Your task to perform on an android device: turn off location Image 0: 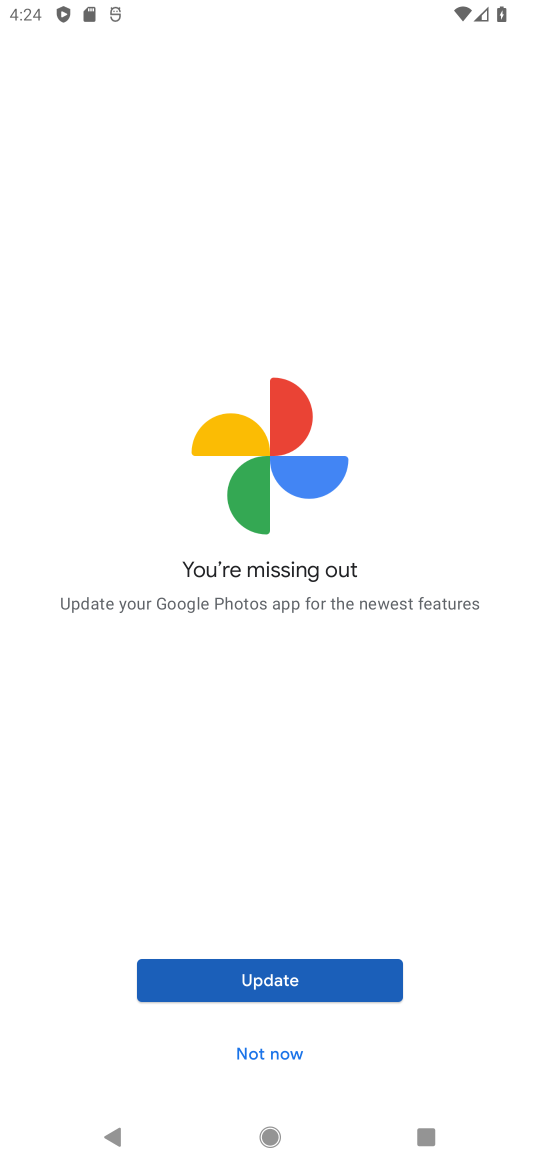
Step 0: press home button
Your task to perform on an android device: turn off location Image 1: 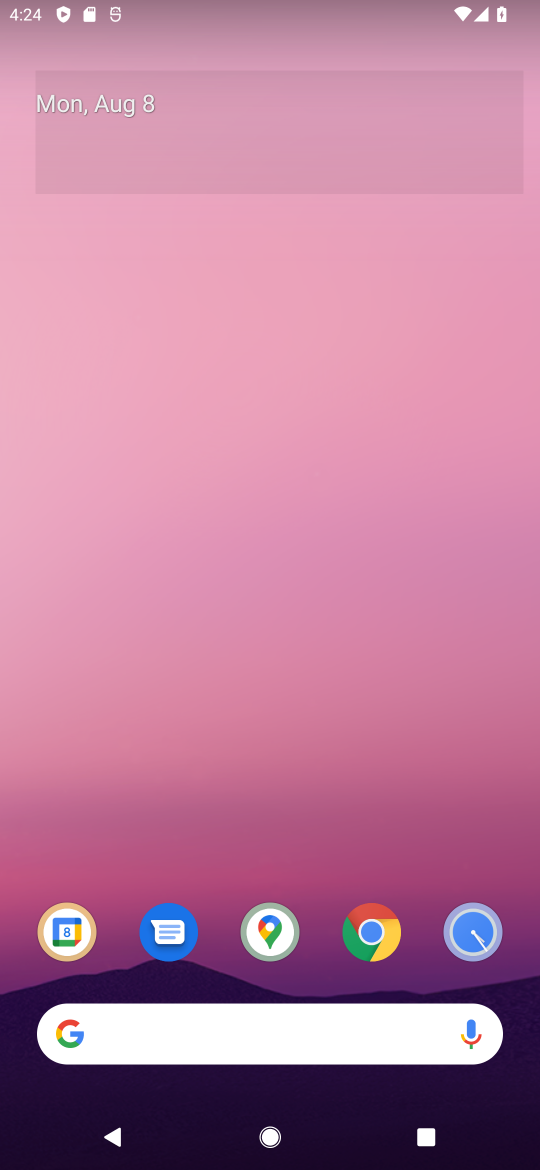
Step 1: drag from (165, 1094) to (219, 42)
Your task to perform on an android device: turn off location Image 2: 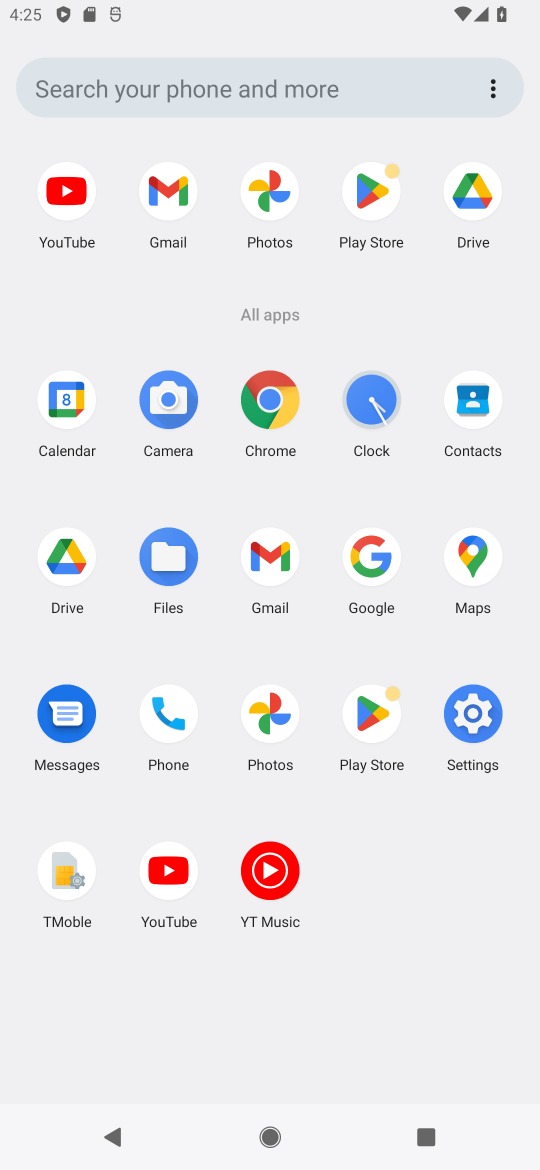
Step 2: click (460, 725)
Your task to perform on an android device: turn off location Image 3: 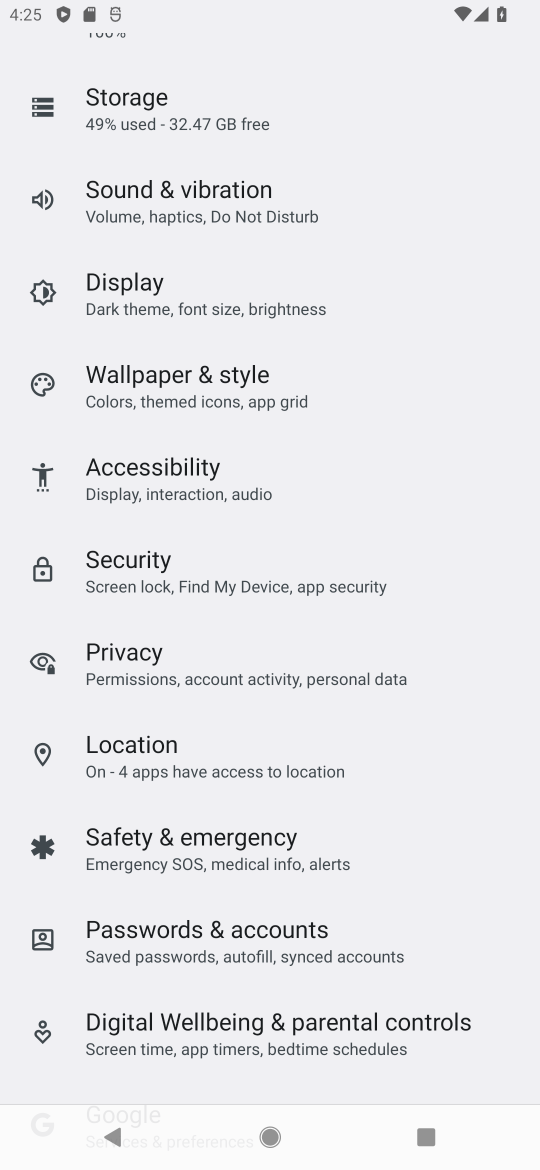
Step 3: click (252, 743)
Your task to perform on an android device: turn off location Image 4: 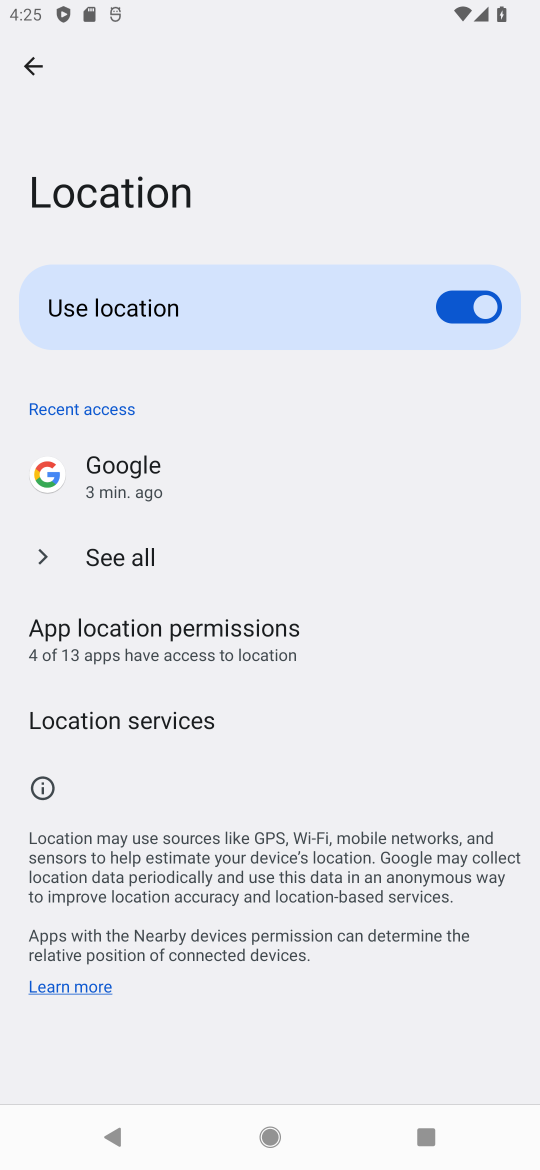
Step 4: click (450, 292)
Your task to perform on an android device: turn off location Image 5: 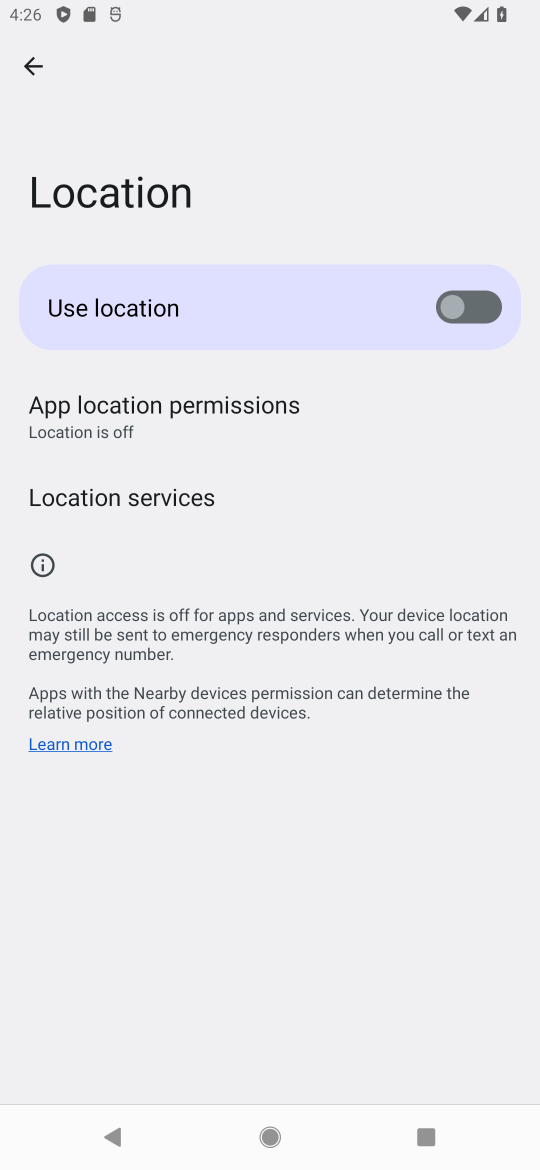
Step 5: task complete